Your task to perform on an android device: open chrome and create a bookmark for the current page Image 0: 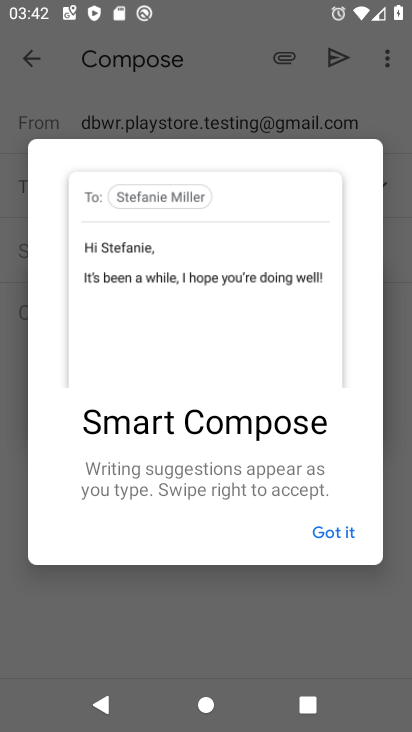
Step 0: click (335, 536)
Your task to perform on an android device: open chrome and create a bookmark for the current page Image 1: 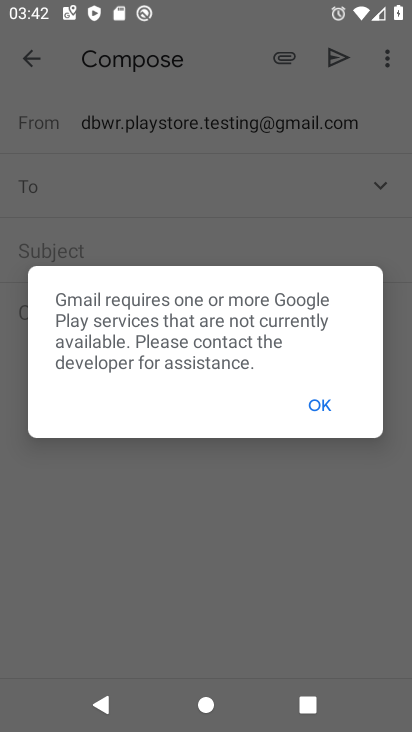
Step 1: click (319, 393)
Your task to perform on an android device: open chrome and create a bookmark for the current page Image 2: 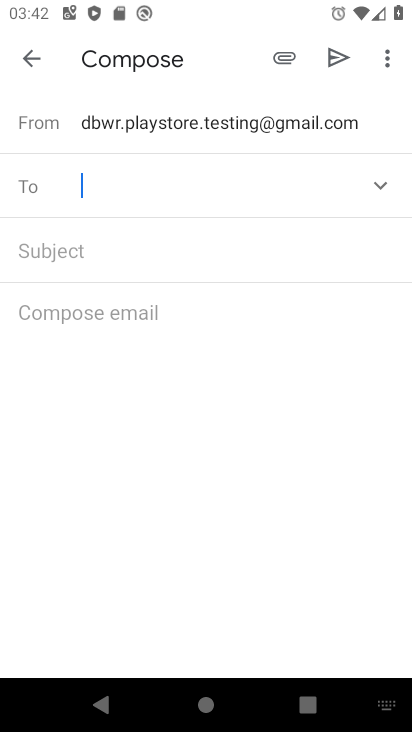
Step 2: press home button
Your task to perform on an android device: open chrome and create a bookmark for the current page Image 3: 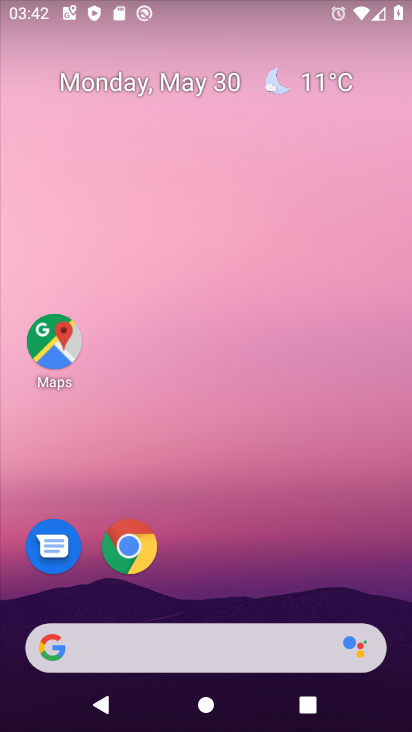
Step 3: click (128, 544)
Your task to perform on an android device: open chrome and create a bookmark for the current page Image 4: 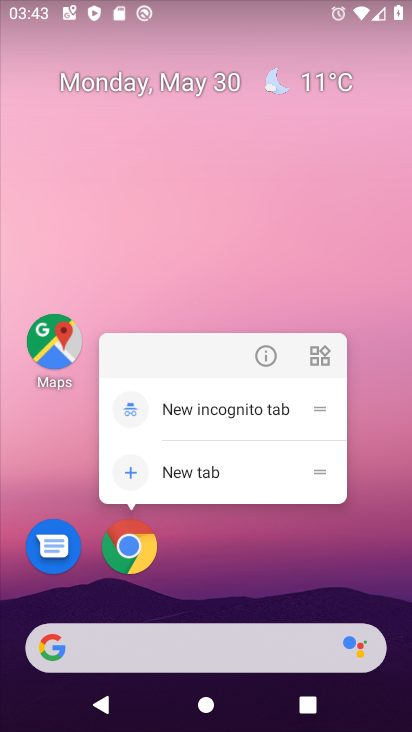
Step 4: click (130, 542)
Your task to perform on an android device: open chrome and create a bookmark for the current page Image 5: 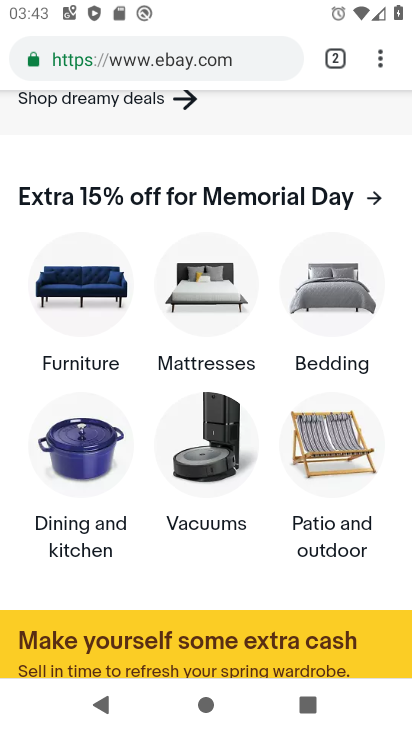
Step 5: click (383, 53)
Your task to perform on an android device: open chrome and create a bookmark for the current page Image 6: 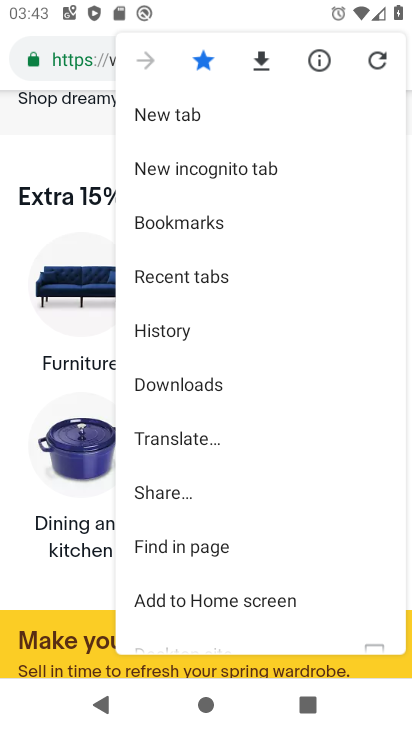
Step 6: task complete